Your task to perform on an android device: turn pop-ups off in chrome Image 0: 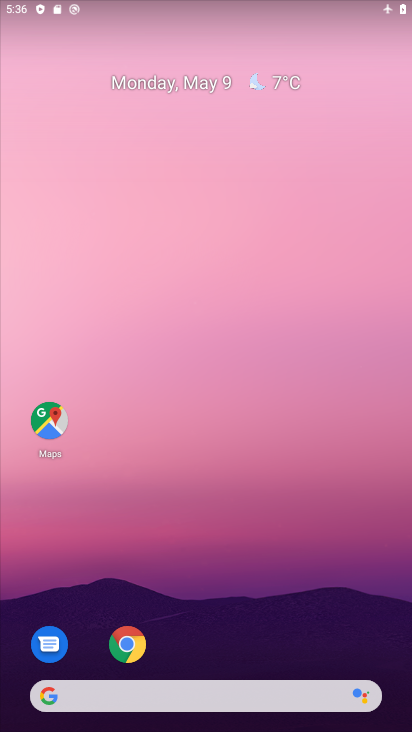
Step 0: click (132, 643)
Your task to perform on an android device: turn pop-ups off in chrome Image 1: 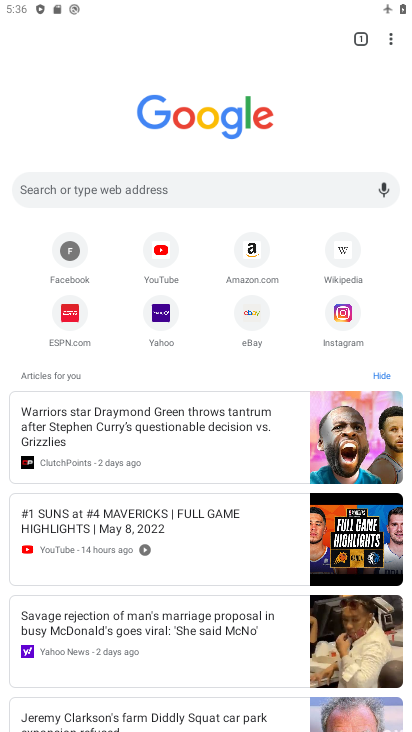
Step 1: click (391, 36)
Your task to perform on an android device: turn pop-ups off in chrome Image 2: 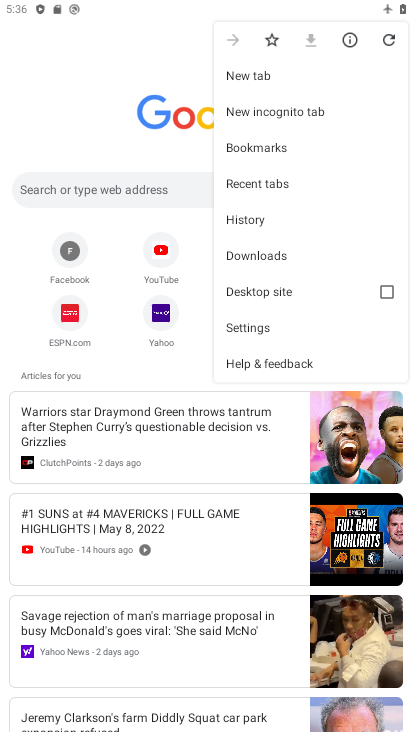
Step 2: click (244, 328)
Your task to perform on an android device: turn pop-ups off in chrome Image 3: 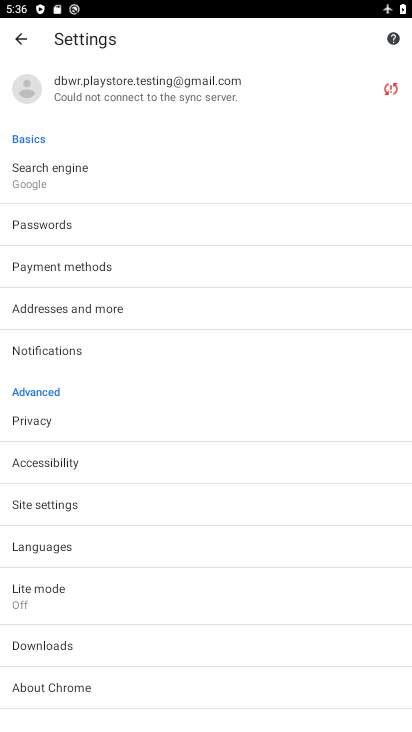
Step 3: click (76, 502)
Your task to perform on an android device: turn pop-ups off in chrome Image 4: 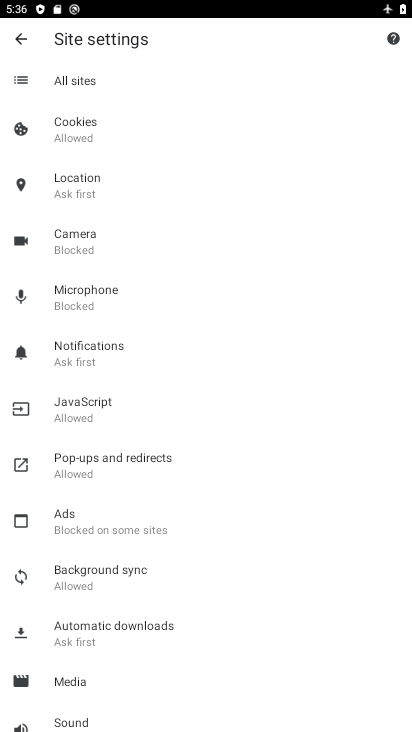
Step 4: click (94, 466)
Your task to perform on an android device: turn pop-ups off in chrome Image 5: 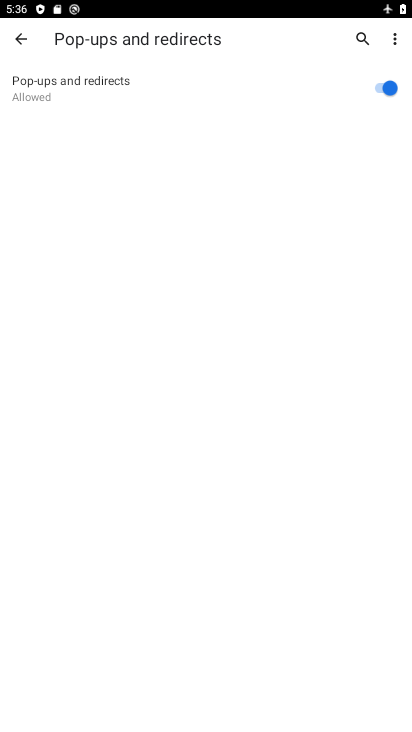
Step 5: click (373, 86)
Your task to perform on an android device: turn pop-ups off in chrome Image 6: 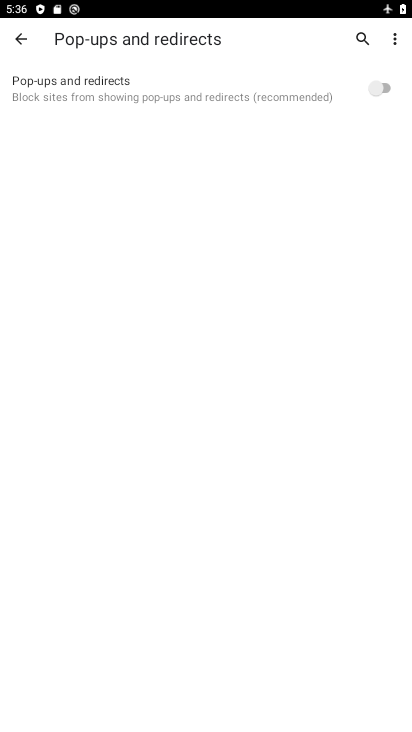
Step 6: task complete